Your task to perform on an android device: change notification settings in the gmail app Image 0: 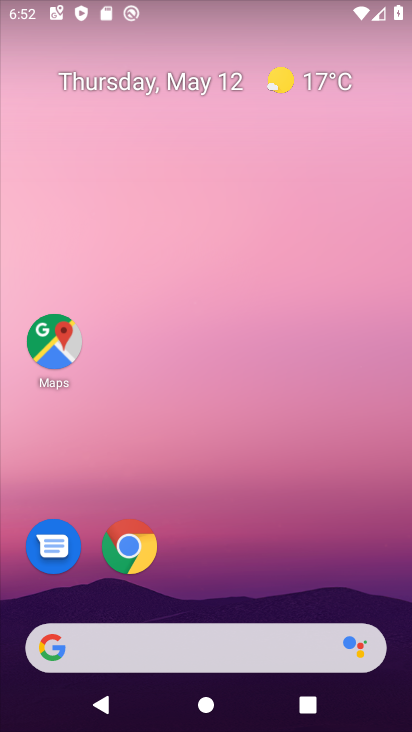
Step 0: drag from (240, 552) to (102, 70)
Your task to perform on an android device: change notification settings in the gmail app Image 1: 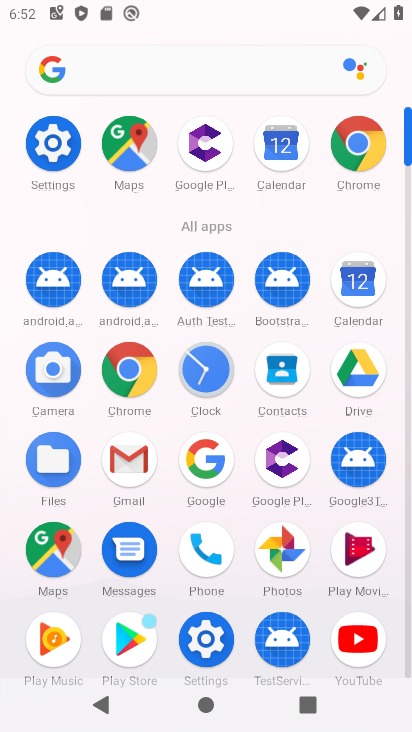
Step 1: click (127, 463)
Your task to perform on an android device: change notification settings in the gmail app Image 2: 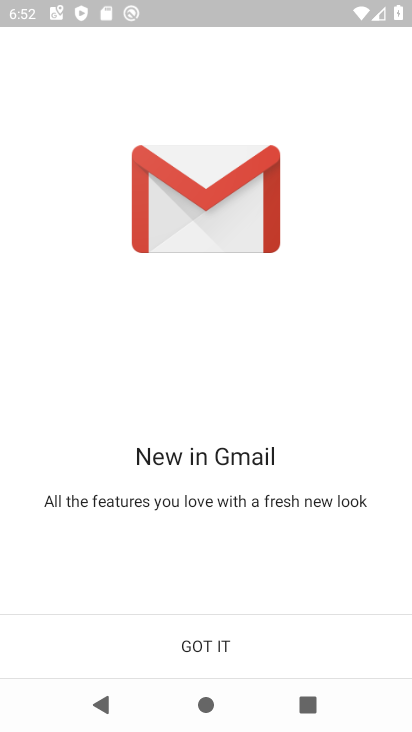
Step 2: click (212, 640)
Your task to perform on an android device: change notification settings in the gmail app Image 3: 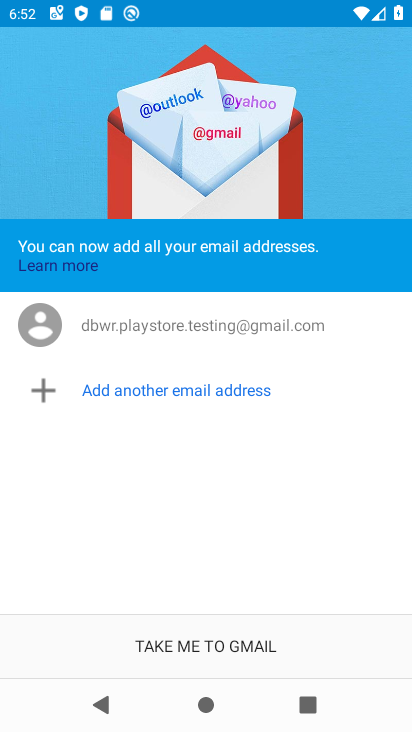
Step 3: click (212, 640)
Your task to perform on an android device: change notification settings in the gmail app Image 4: 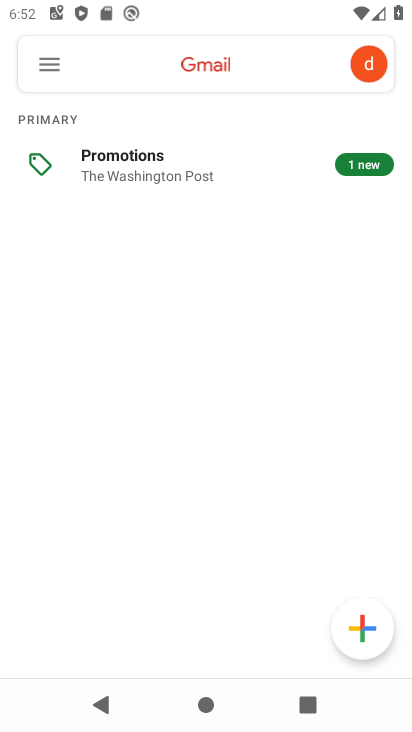
Step 4: click (42, 63)
Your task to perform on an android device: change notification settings in the gmail app Image 5: 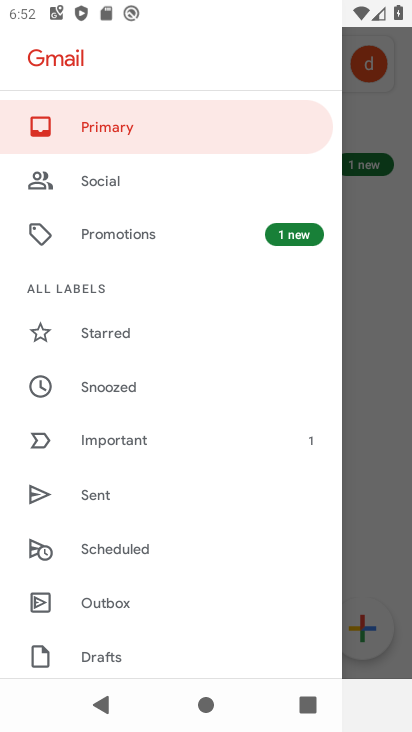
Step 5: drag from (146, 563) to (102, 163)
Your task to perform on an android device: change notification settings in the gmail app Image 6: 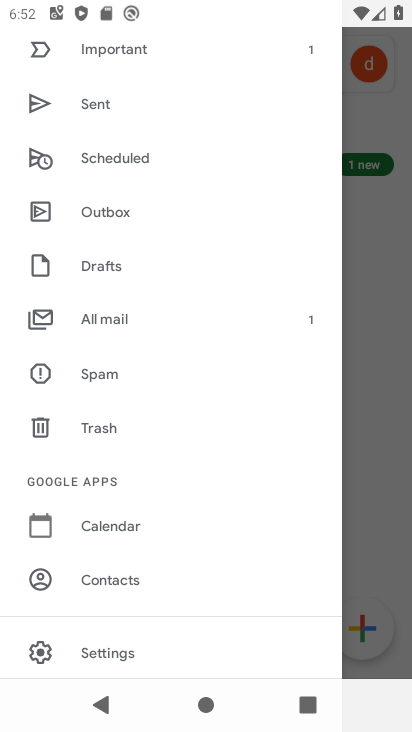
Step 6: drag from (176, 621) to (137, 291)
Your task to perform on an android device: change notification settings in the gmail app Image 7: 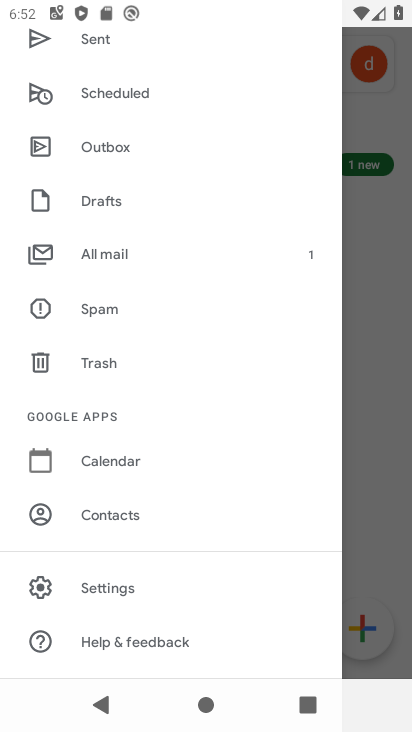
Step 7: click (119, 580)
Your task to perform on an android device: change notification settings in the gmail app Image 8: 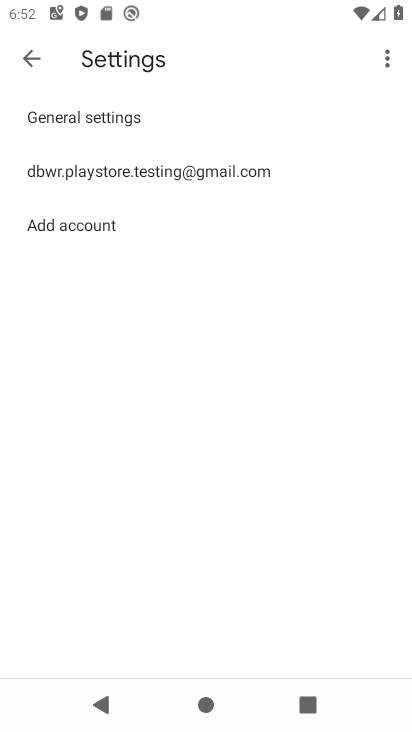
Step 8: click (74, 117)
Your task to perform on an android device: change notification settings in the gmail app Image 9: 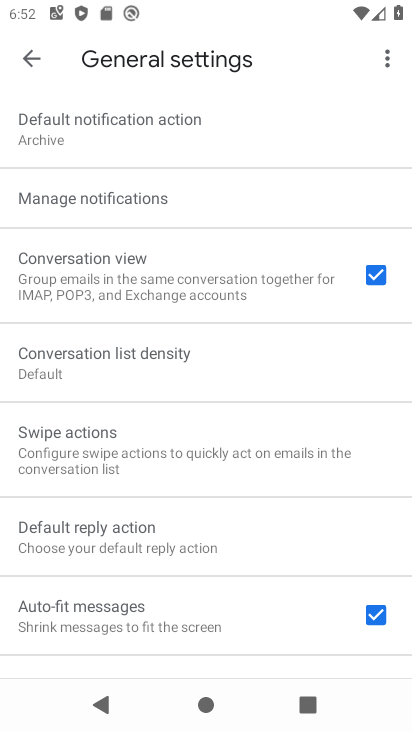
Step 9: click (66, 191)
Your task to perform on an android device: change notification settings in the gmail app Image 10: 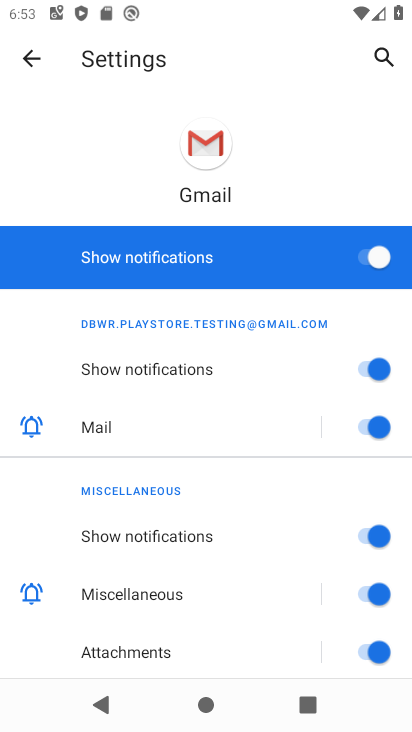
Step 10: click (384, 254)
Your task to perform on an android device: change notification settings in the gmail app Image 11: 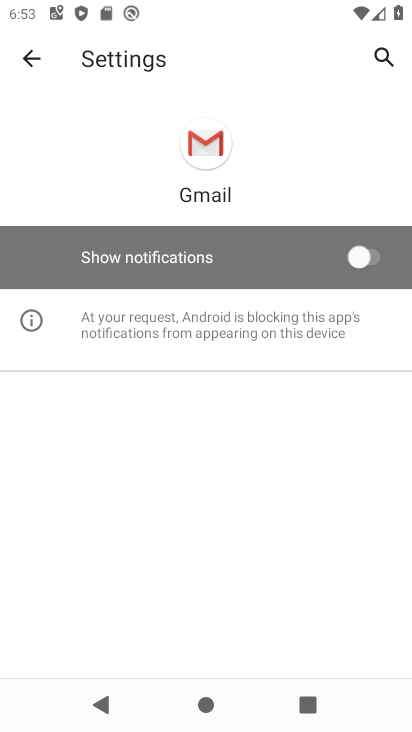
Step 11: task complete